Your task to perform on an android device: Open the phone app and click the voicemail tab. Image 0: 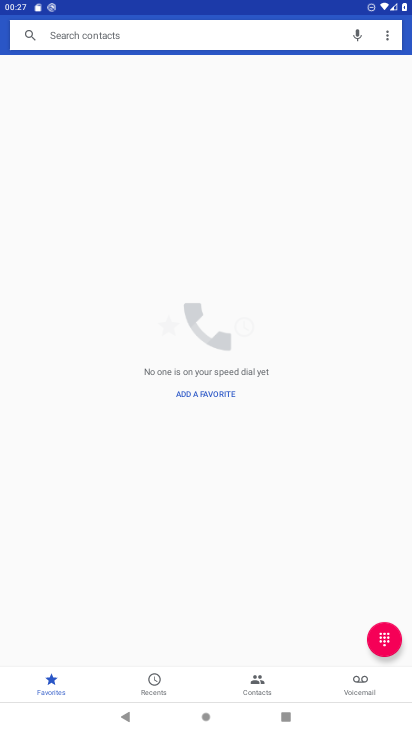
Step 0: click (373, 677)
Your task to perform on an android device: Open the phone app and click the voicemail tab. Image 1: 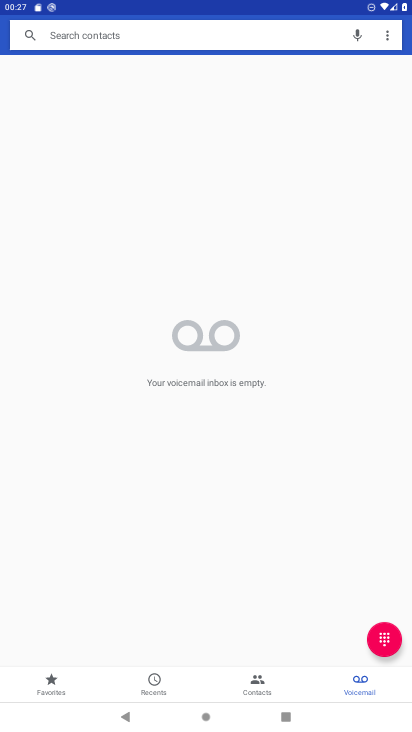
Step 1: task complete